Your task to perform on an android device: Clear the cart on amazon. Add "razer huntsman" to the cart on amazon Image 0: 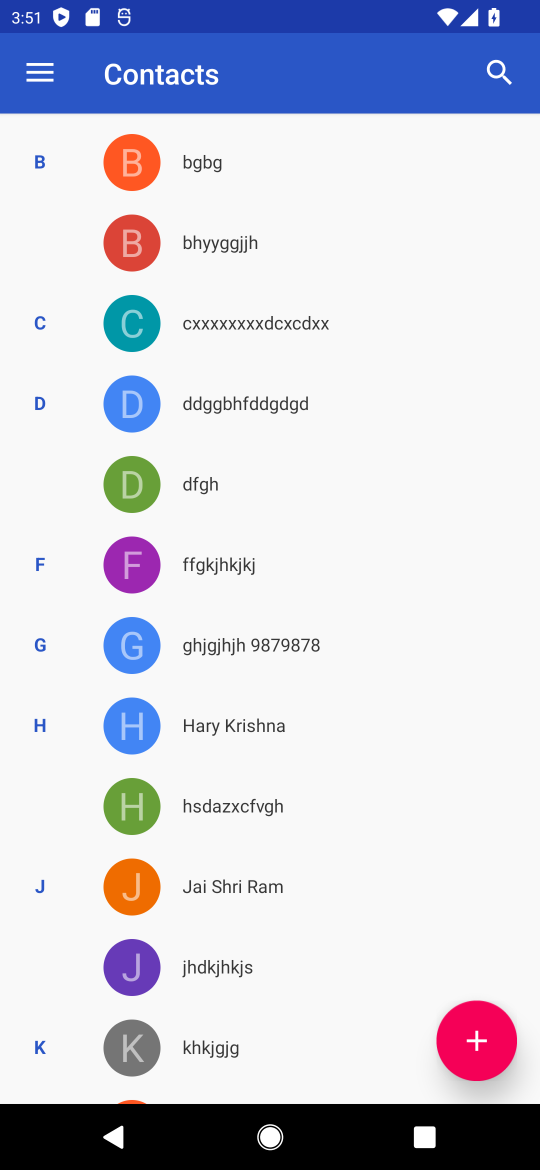
Step 0: press home button
Your task to perform on an android device: Clear the cart on amazon. Add "razer huntsman" to the cart on amazon Image 1: 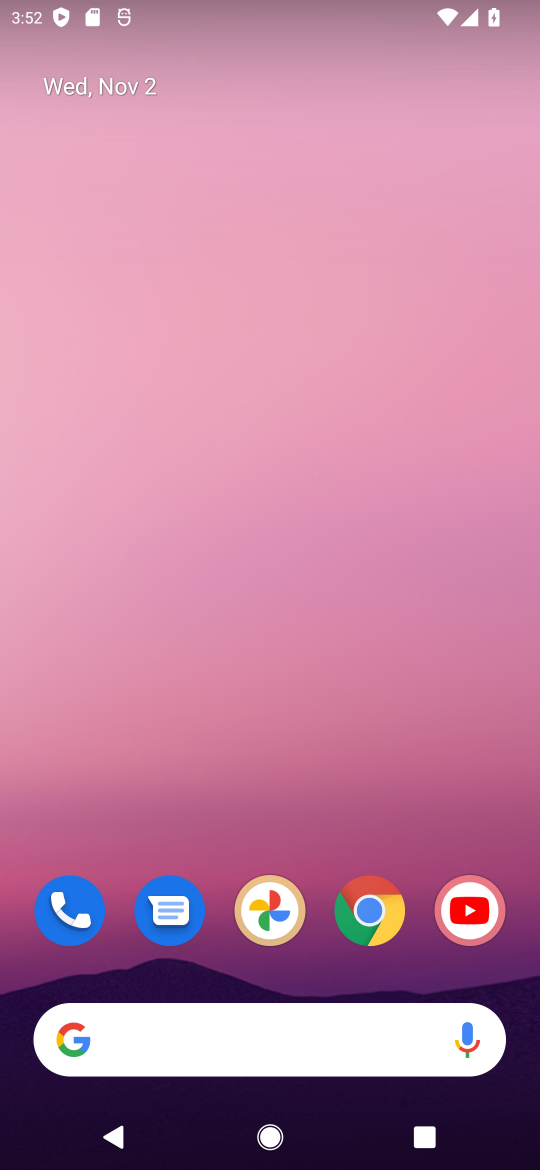
Step 1: click (366, 908)
Your task to perform on an android device: Clear the cart on amazon. Add "razer huntsman" to the cart on amazon Image 2: 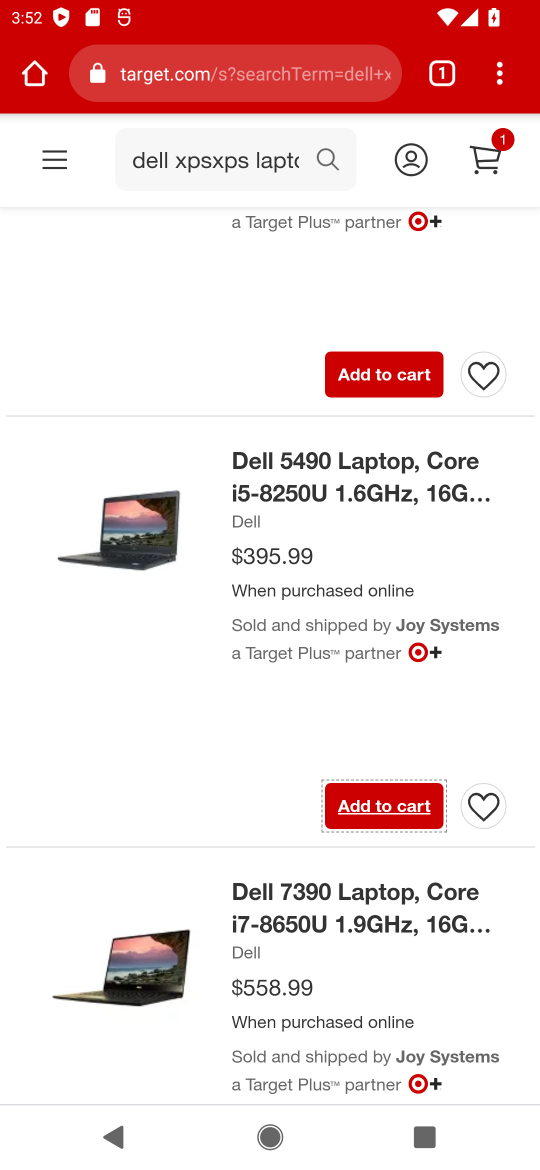
Step 2: click (256, 87)
Your task to perform on an android device: Clear the cart on amazon. Add "razer huntsman" to the cart on amazon Image 3: 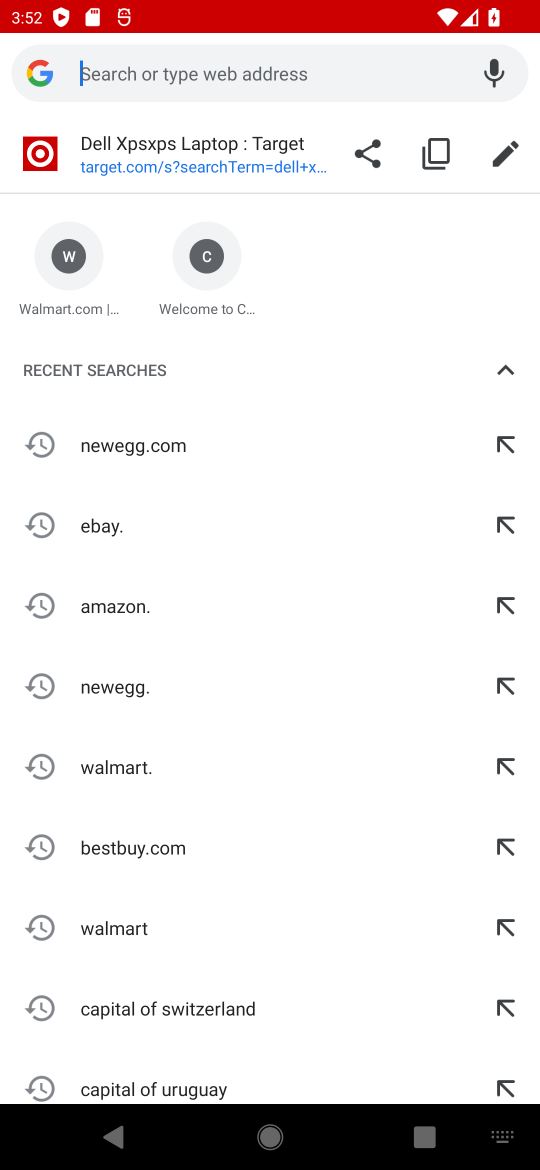
Step 3: type "amazon"
Your task to perform on an android device: Clear the cart on amazon. Add "razer huntsman" to the cart on amazon Image 4: 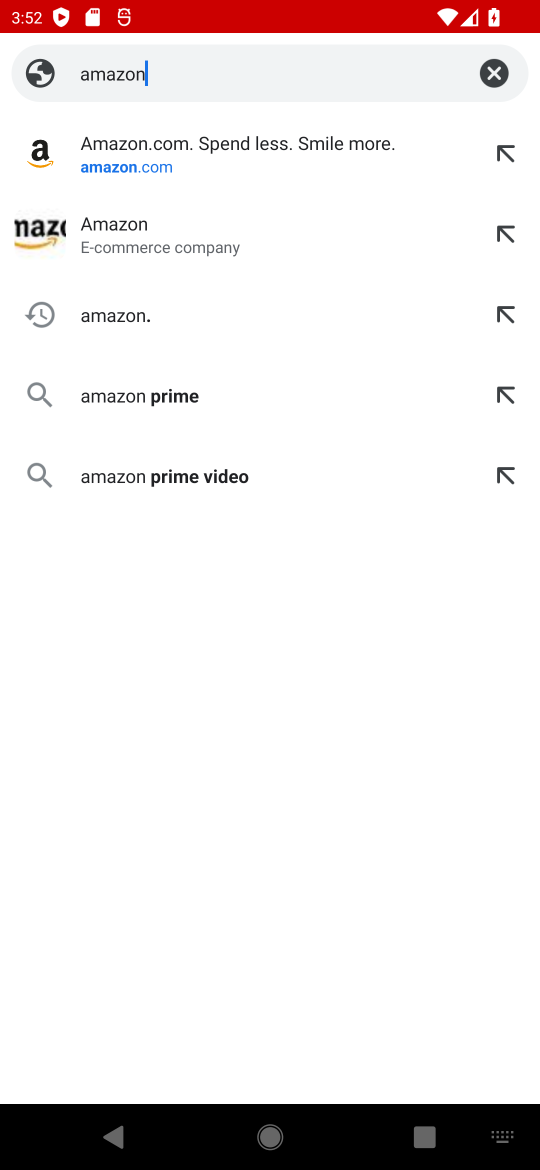
Step 4: click (163, 138)
Your task to perform on an android device: Clear the cart on amazon. Add "razer huntsman" to the cart on amazon Image 5: 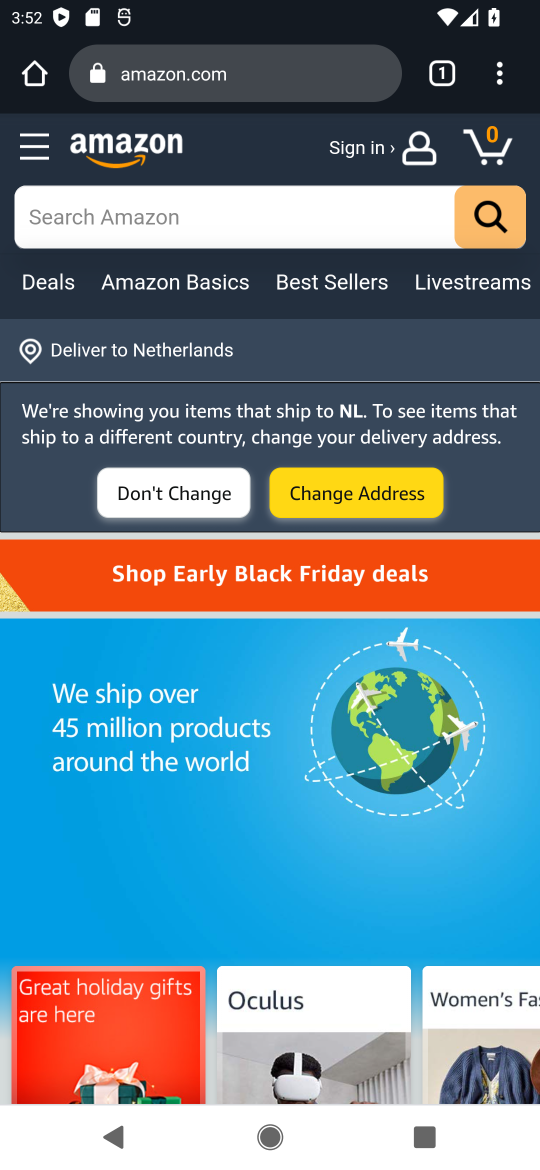
Step 5: click (193, 234)
Your task to perform on an android device: Clear the cart on amazon. Add "razer huntsman" to the cart on amazon Image 6: 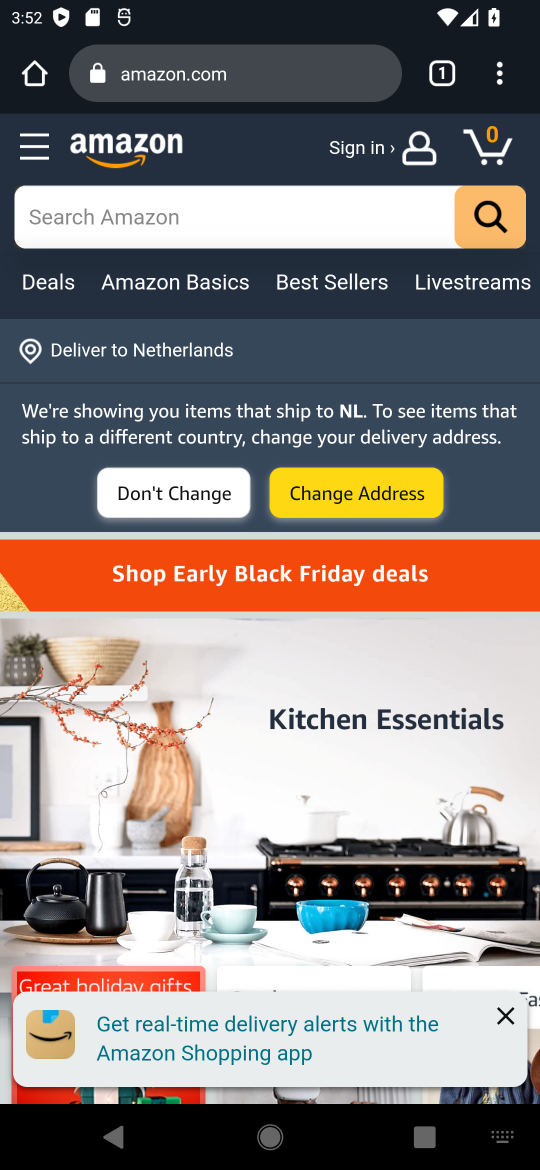
Step 6: type "razer huntsman"
Your task to perform on an android device: Clear the cart on amazon. Add "razer huntsman" to the cart on amazon Image 7: 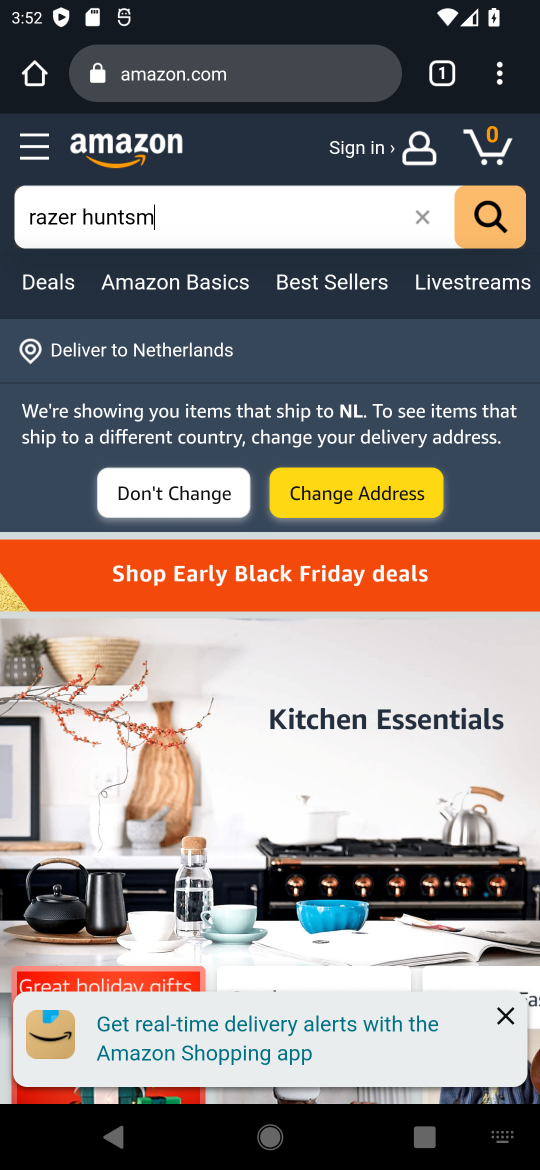
Step 7: type ""
Your task to perform on an android device: Clear the cart on amazon. Add "razer huntsman" to the cart on amazon Image 8: 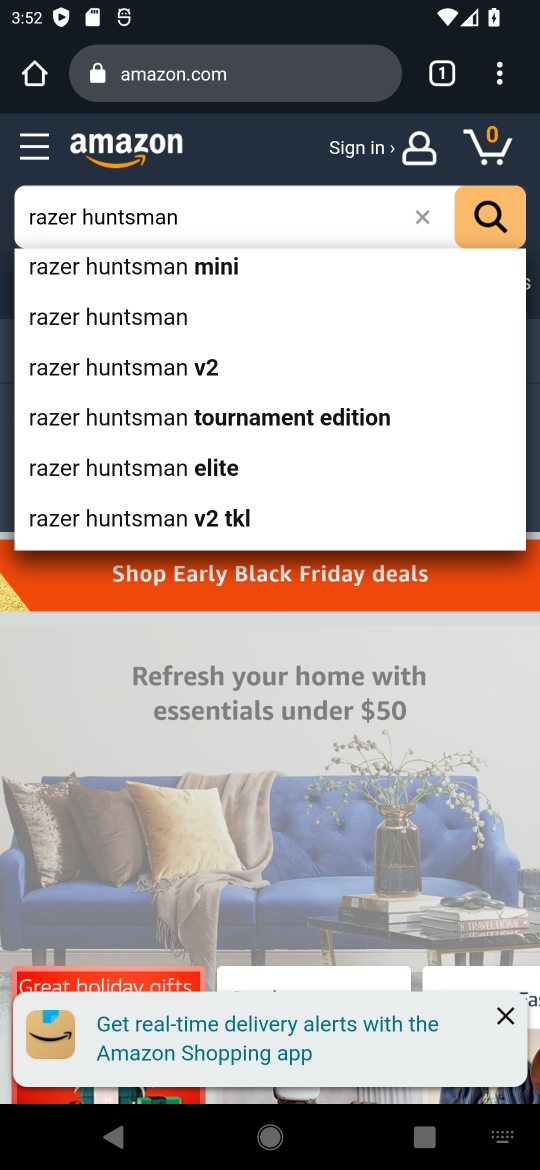
Step 8: click (508, 227)
Your task to perform on an android device: Clear the cart on amazon. Add "razer huntsman" to the cart on amazon Image 9: 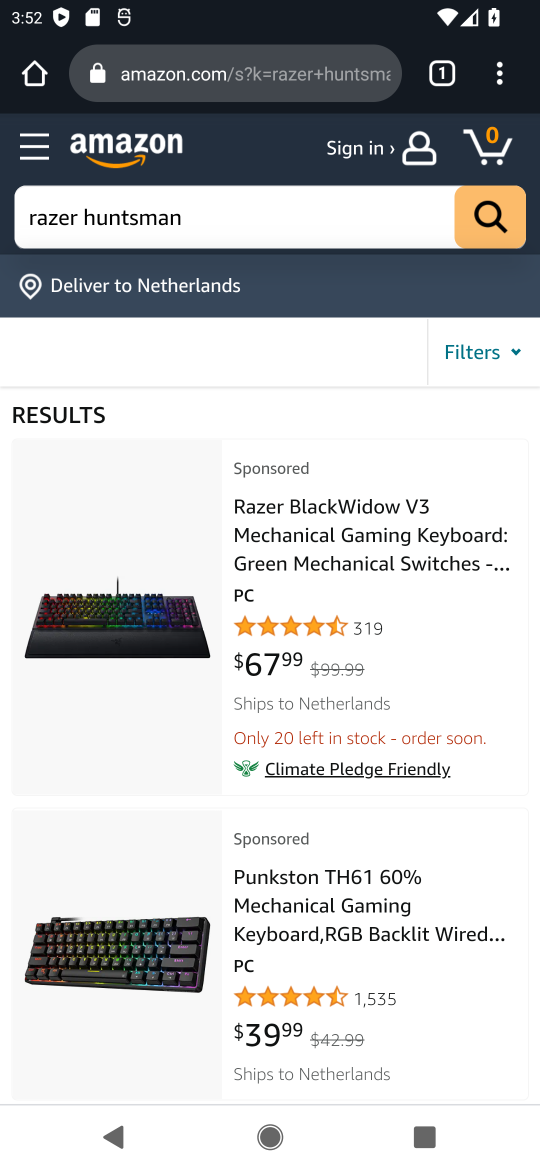
Step 9: drag from (330, 924) to (331, 544)
Your task to perform on an android device: Clear the cart on amazon. Add "razer huntsman" to the cart on amazon Image 10: 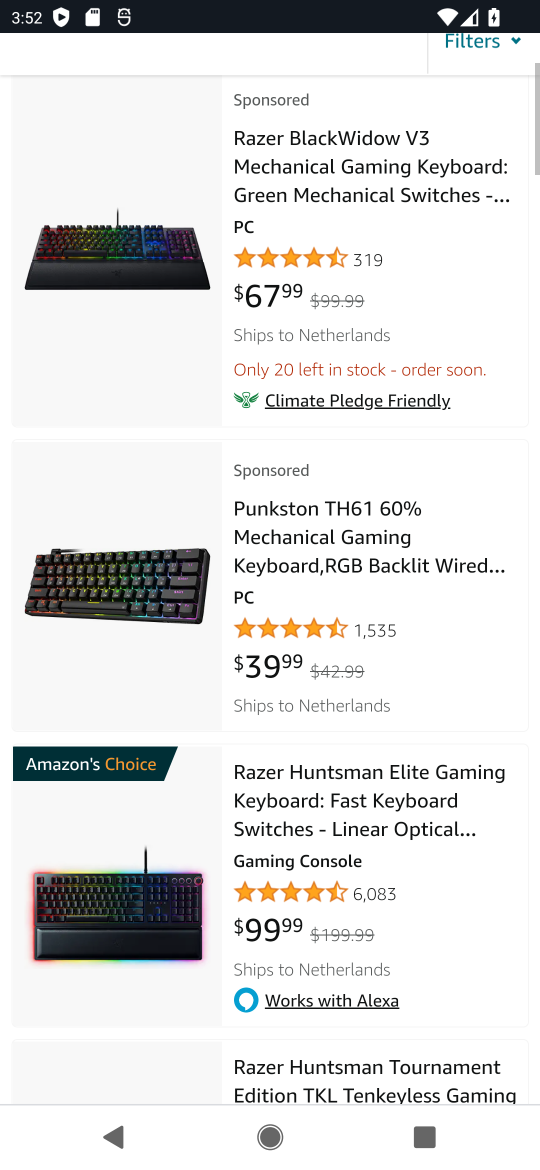
Step 10: click (321, 800)
Your task to perform on an android device: Clear the cart on amazon. Add "razer huntsman" to the cart on amazon Image 11: 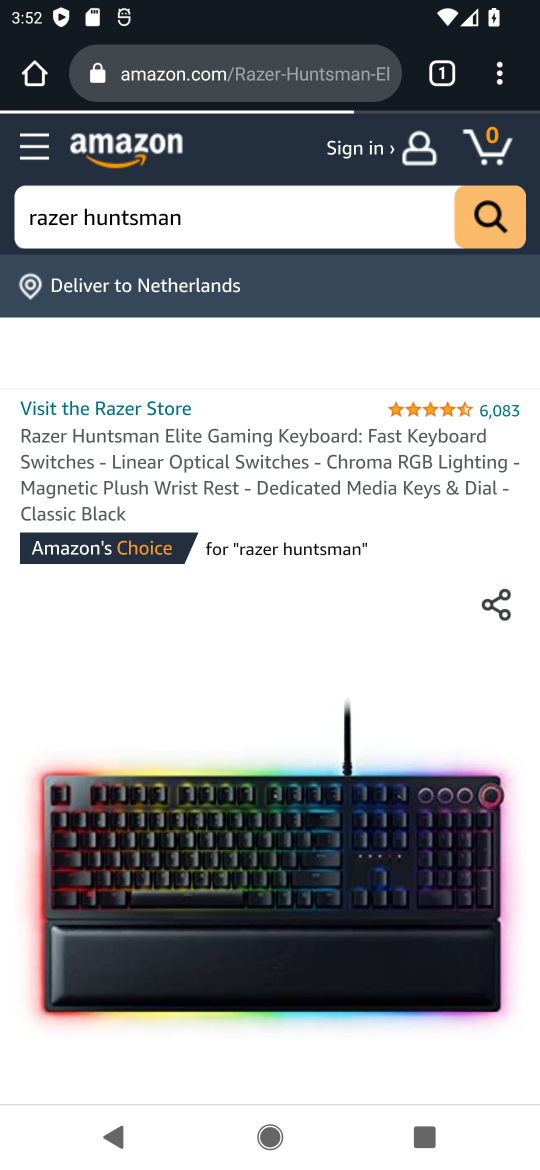
Step 11: drag from (311, 814) to (311, 586)
Your task to perform on an android device: Clear the cart on amazon. Add "razer huntsman" to the cart on amazon Image 12: 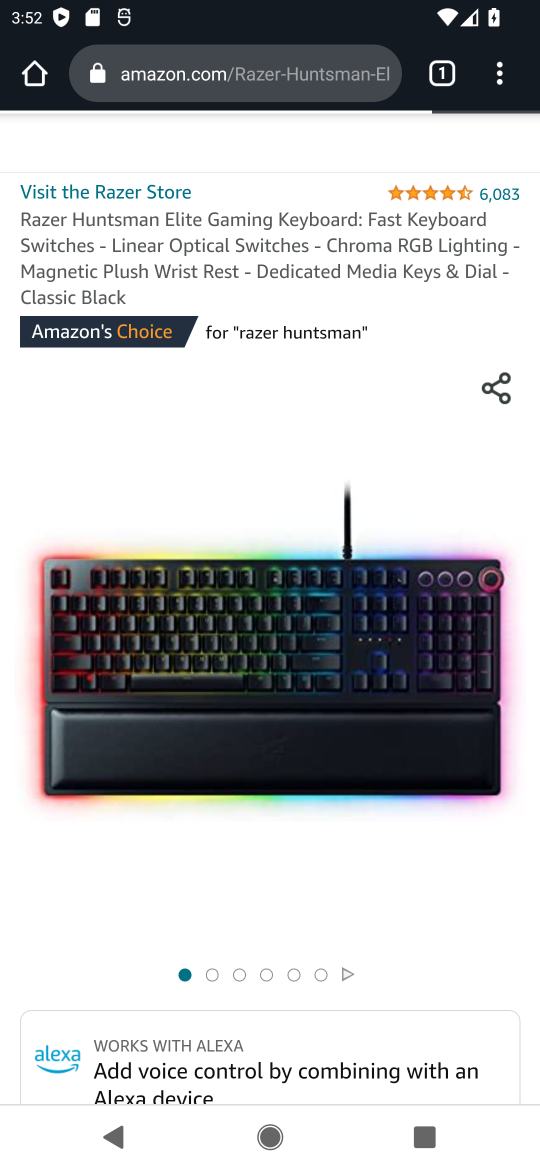
Step 12: drag from (283, 1044) to (307, 559)
Your task to perform on an android device: Clear the cart on amazon. Add "razer huntsman" to the cart on amazon Image 13: 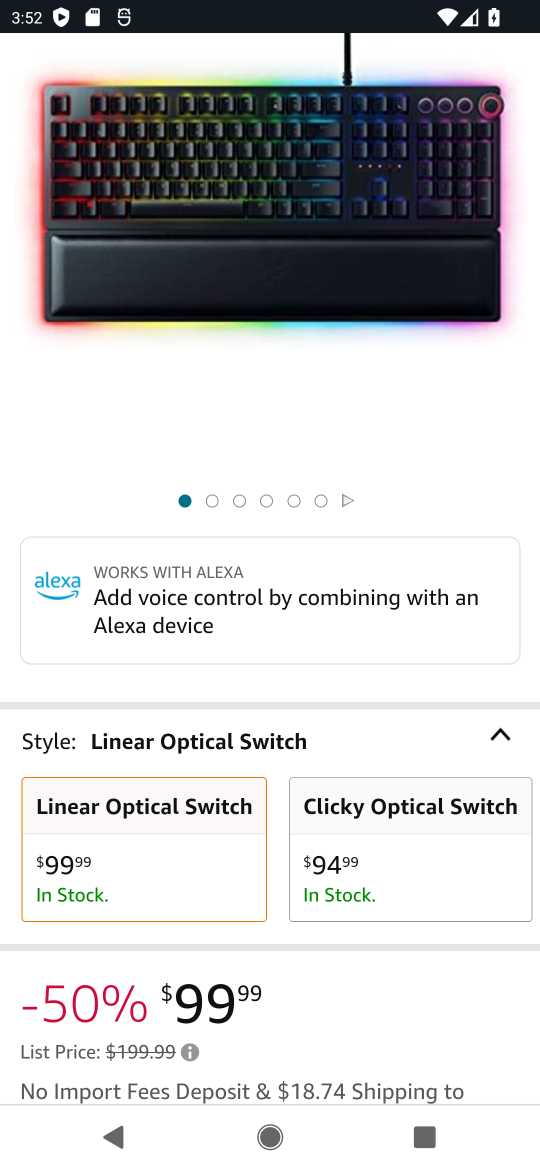
Step 13: drag from (339, 830) to (368, 406)
Your task to perform on an android device: Clear the cart on amazon. Add "razer huntsman" to the cart on amazon Image 14: 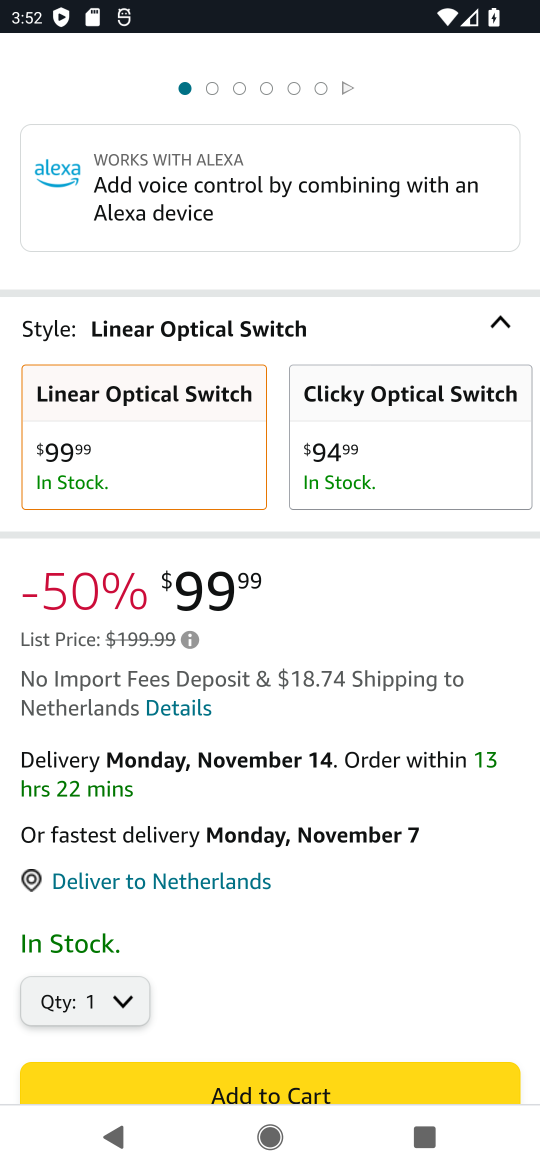
Step 14: drag from (345, 892) to (372, 687)
Your task to perform on an android device: Clear the cart on amazon. Add "razer huntsman" to the cart on amazon Image 15: 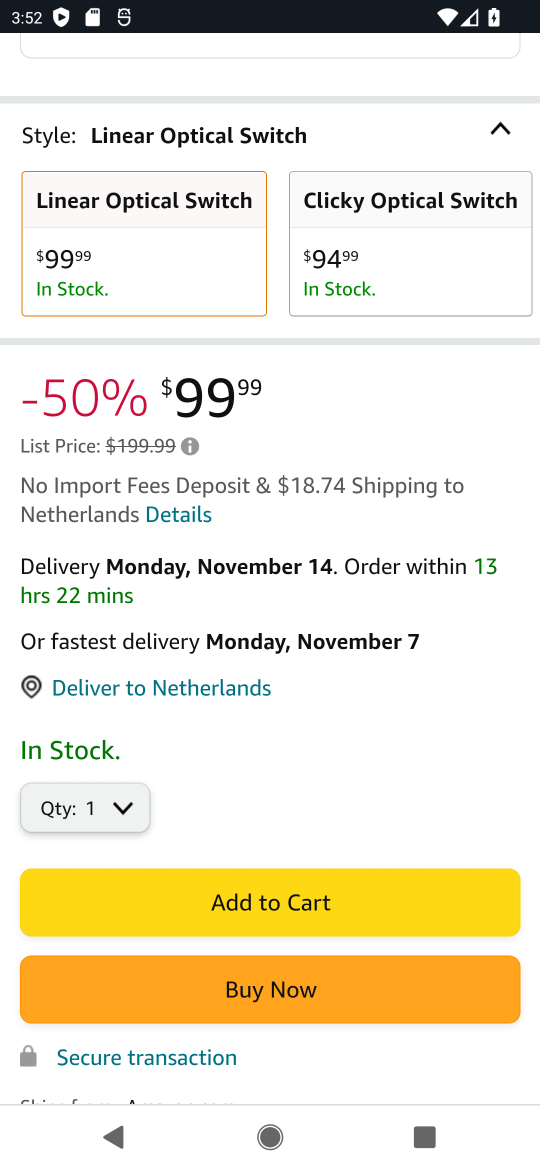
Step 15: click (373, 885)
Your task to perform on an android device: Clear the cart on amazon. Add "razer huntsman" to the cart on amazon Image 16: 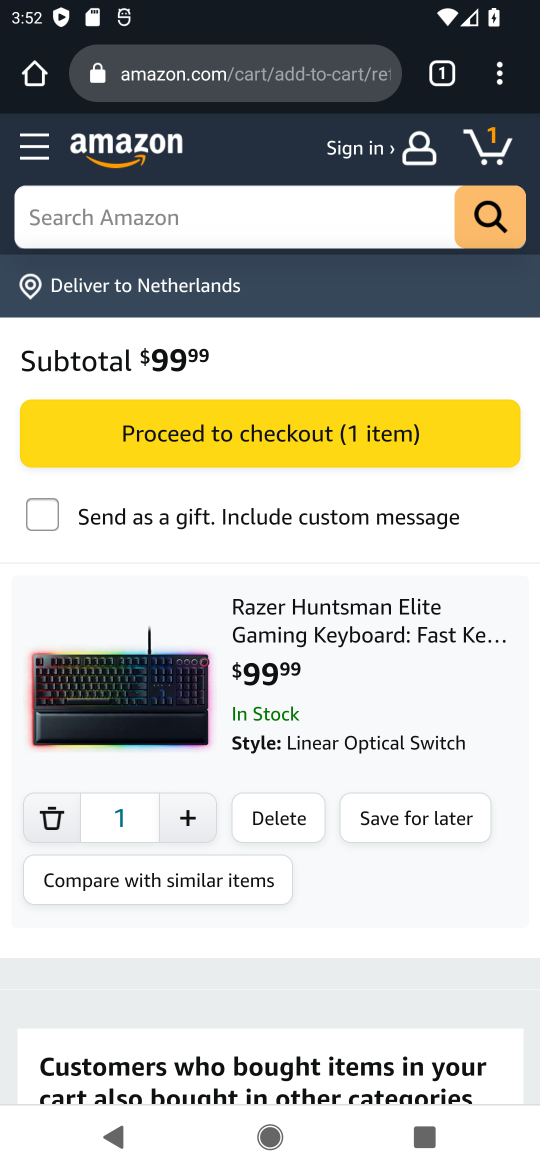
Step 16: click (235, 423)
Your task to perform on an android device: Clear the cart on amazon. Add "razer huntsman" to the cart on amazon Image 17: 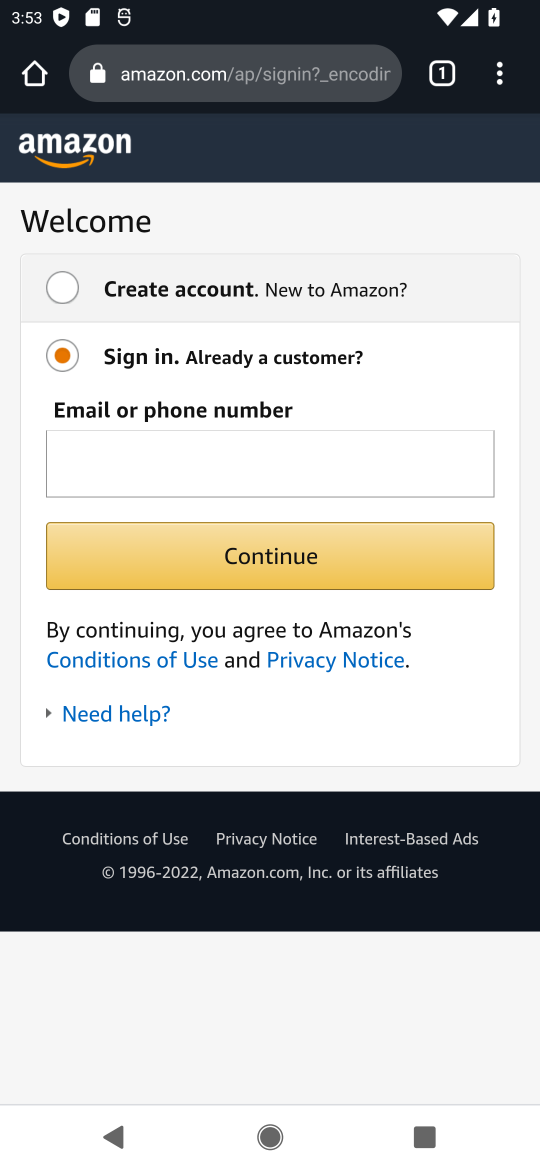
Step 17: task complete